Your task to perform on an android device: turn off location Image 0: 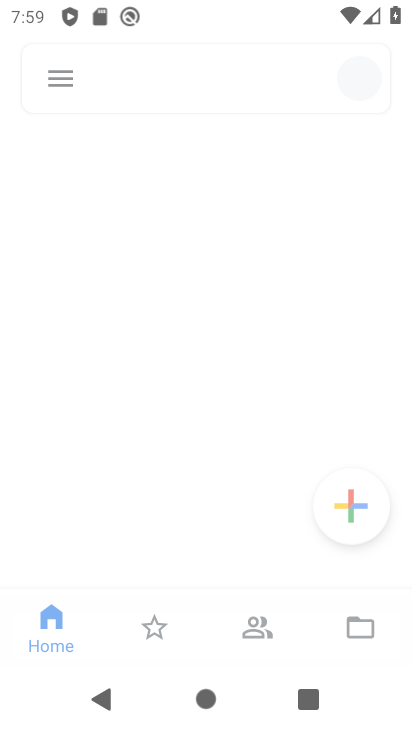
Step 0: drag from (164, 497) to (275, 108)
Your task to perform on an android device: turn off location Image 1: 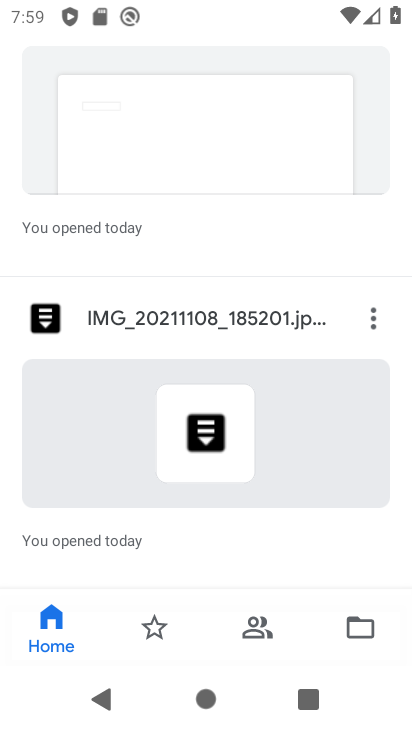
Step 1: press back button
Your task to perform on an android device: turn off location Image 2: 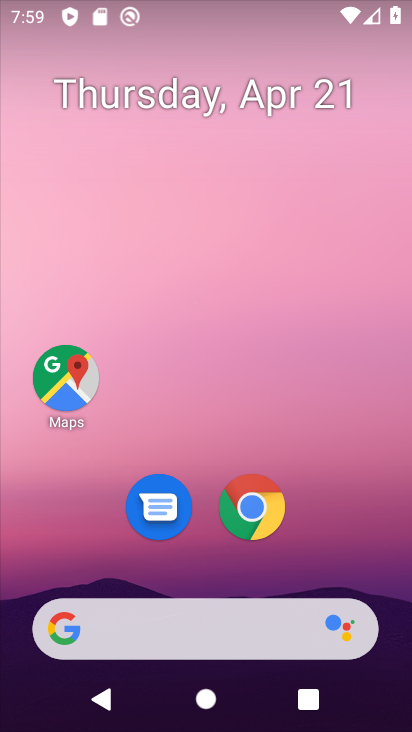
Step 2: drag from (181, 519) to (319, 31)
Your task to perform on an android device: turn off location Image 3: 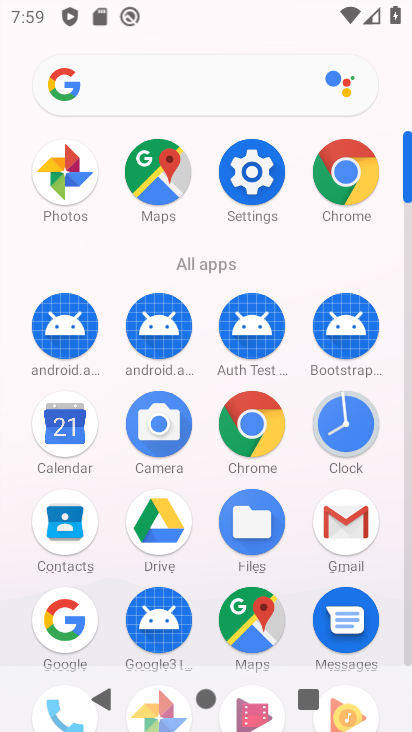
Step 3: click (264, 169)
Your task to perform on an android device: turn off location Image 4: 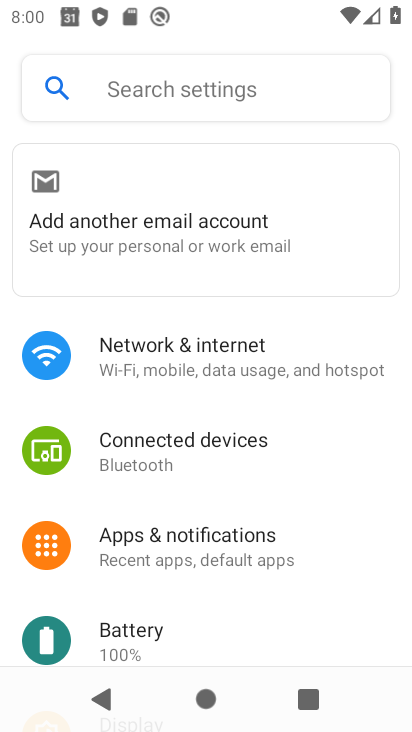
Step 4: drag from (188, 593) to (292, 156)
Your task to perform on an android device: turn off location Image 5: 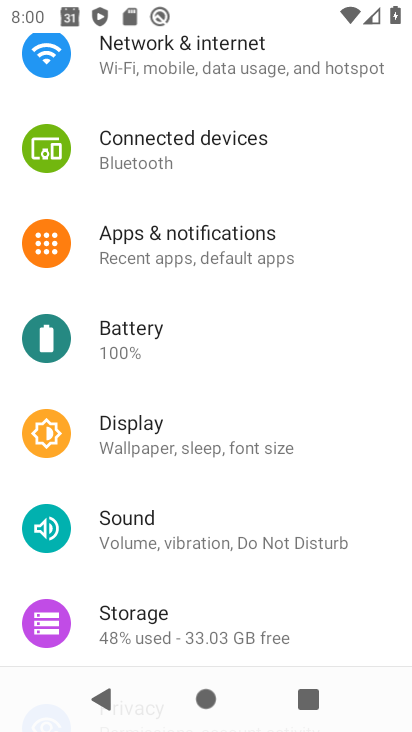
Step 5: drag from (208, 575) to (276, 191)
Your task to perform on an android device: turn off location Image 6: 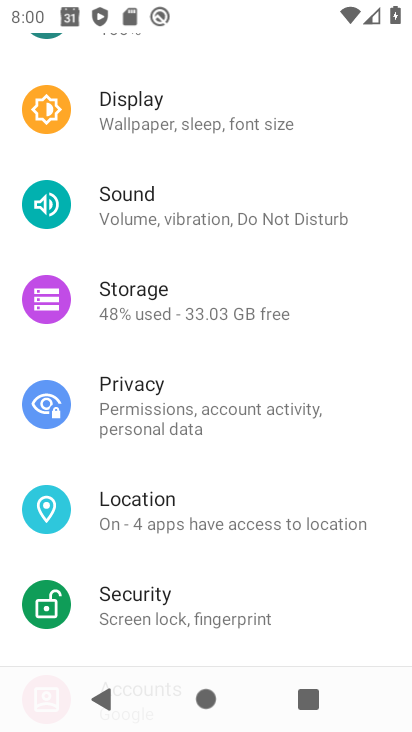
Step 6: click (151, 508)
Your task to perform on an android device: turn off location Image 7: 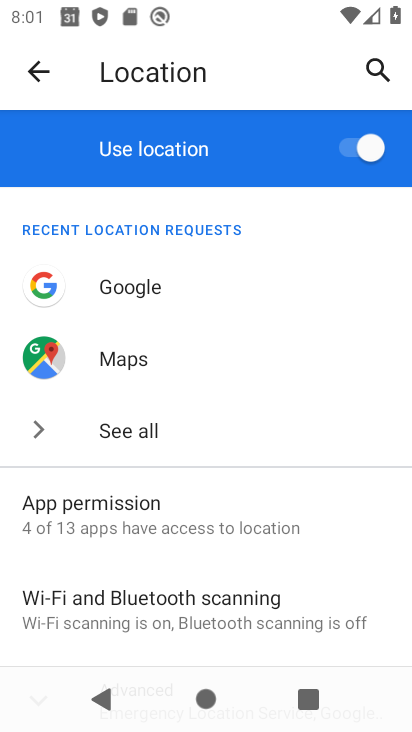
Step 7: click (358, 136)
Your task to perform on an android device: turn off location Image 8: 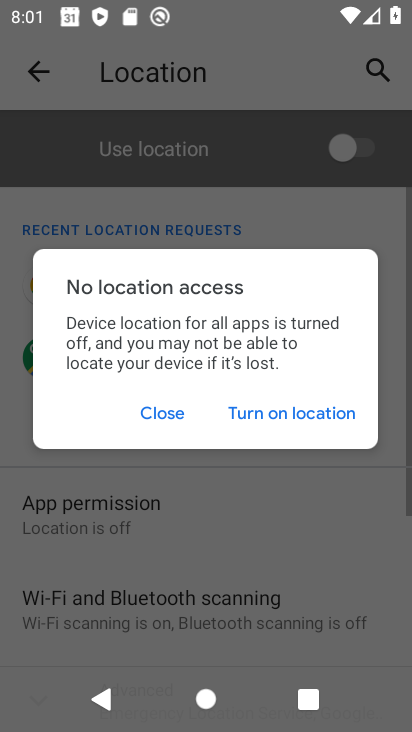
Step 8: task complete